Your task to perform on an android device: open app "Airtel Thanks" Image 0: 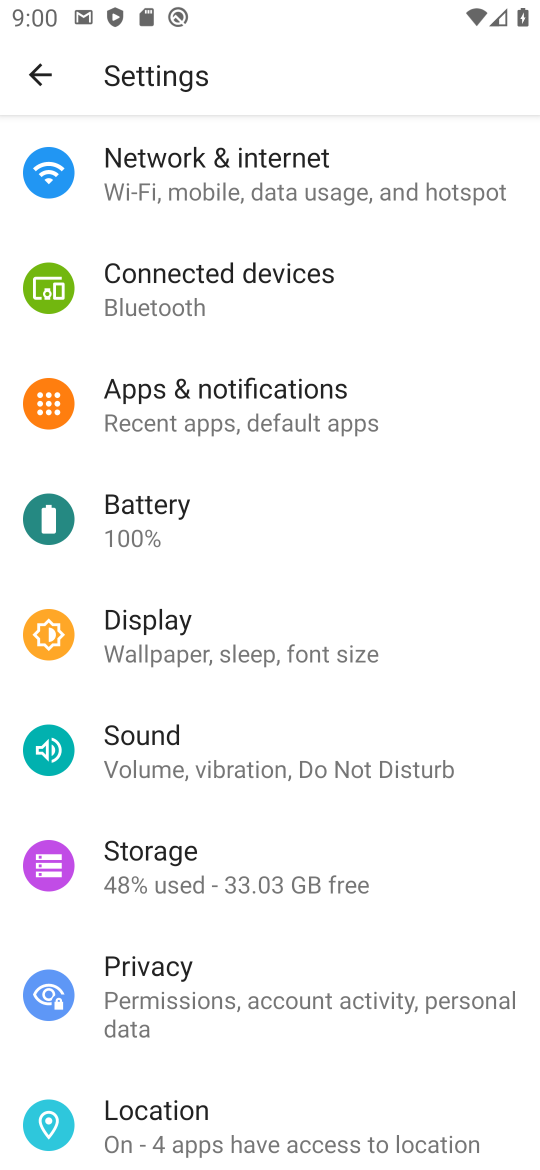
Step 0: press home button
Your task to perform on an android device: open app "Airtel Thanks" Image 1: 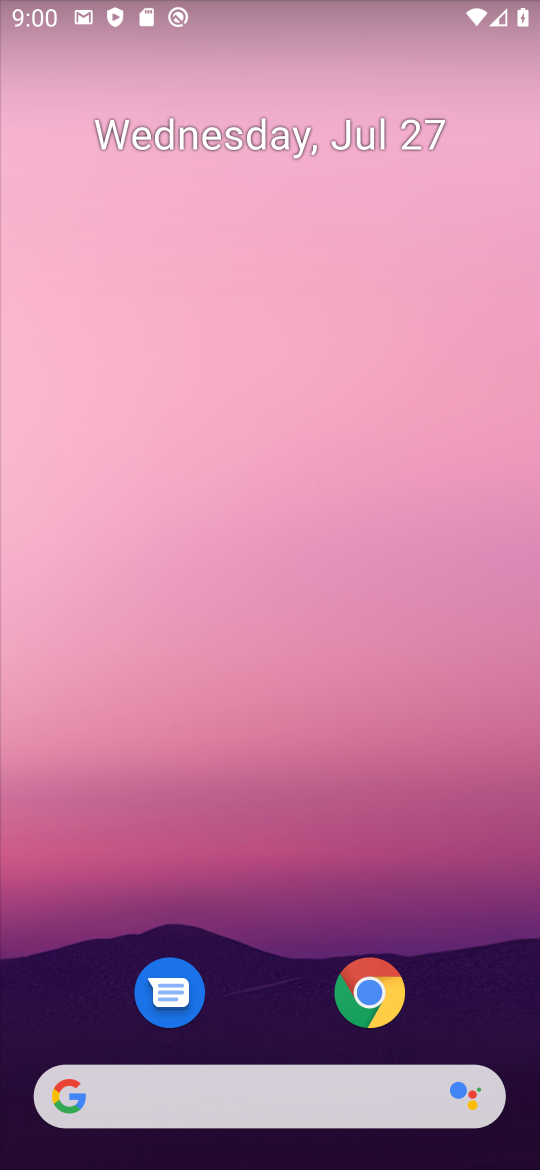
Step 1: drag from (301, 1066) to (301, 196)
Your task to perform on an android device: open app "Airtel Thanks" Image 2: 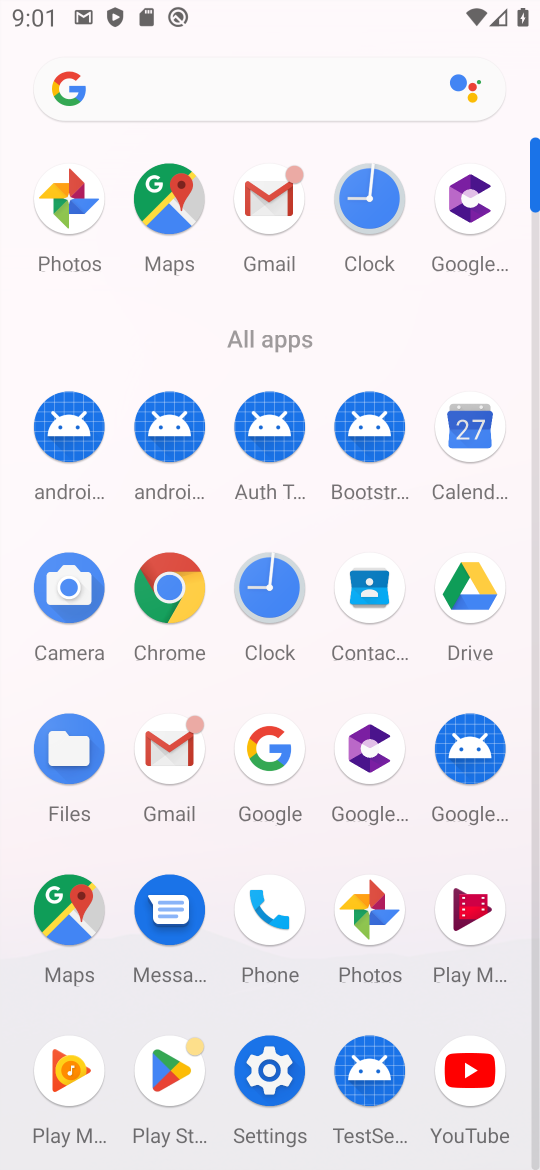
Step 2: click (175, 1072)
Your task to perform on an android device: open app "Airtel Thanks" Image 3: 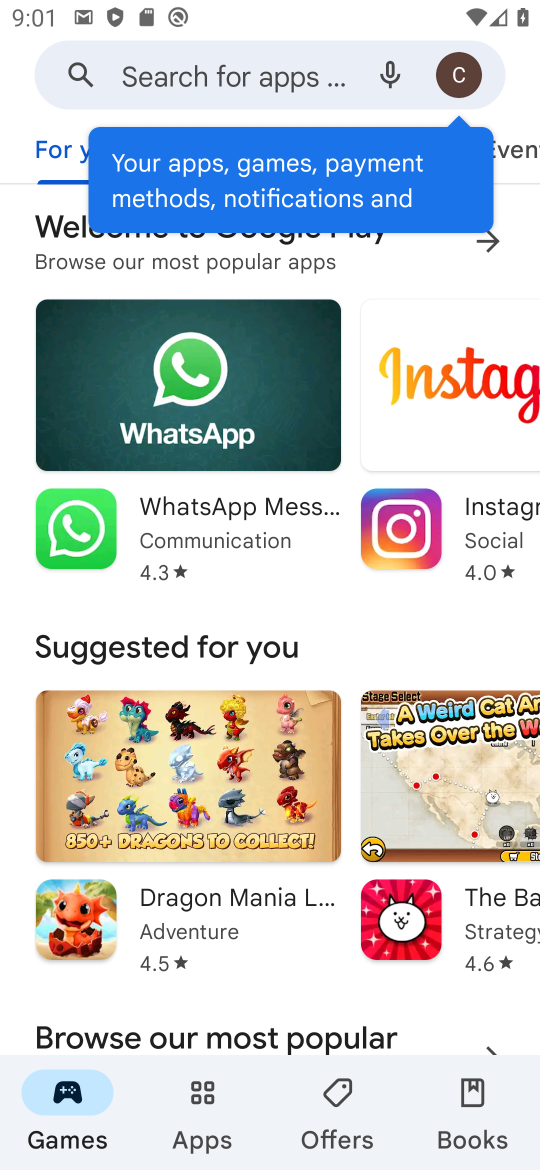
Step 3: click (231, 77)
Your task to perform on an android device: open app "Airtel Thanks" Image 4: 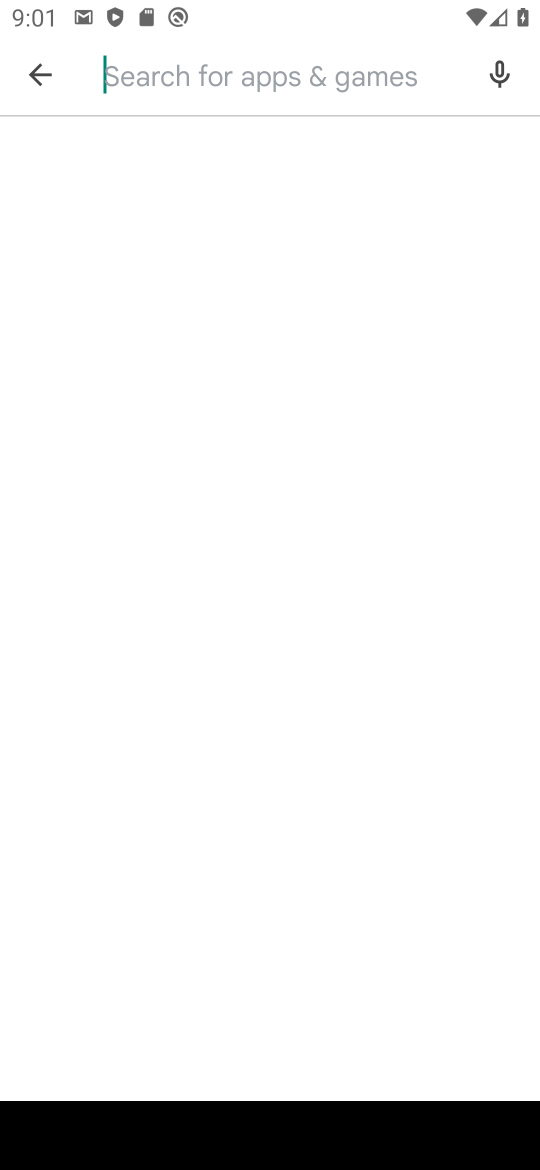
Step 4: type "Airtel Thanks"
Your task to perform on an android device: open app "Airtel Thanks" Image 5: 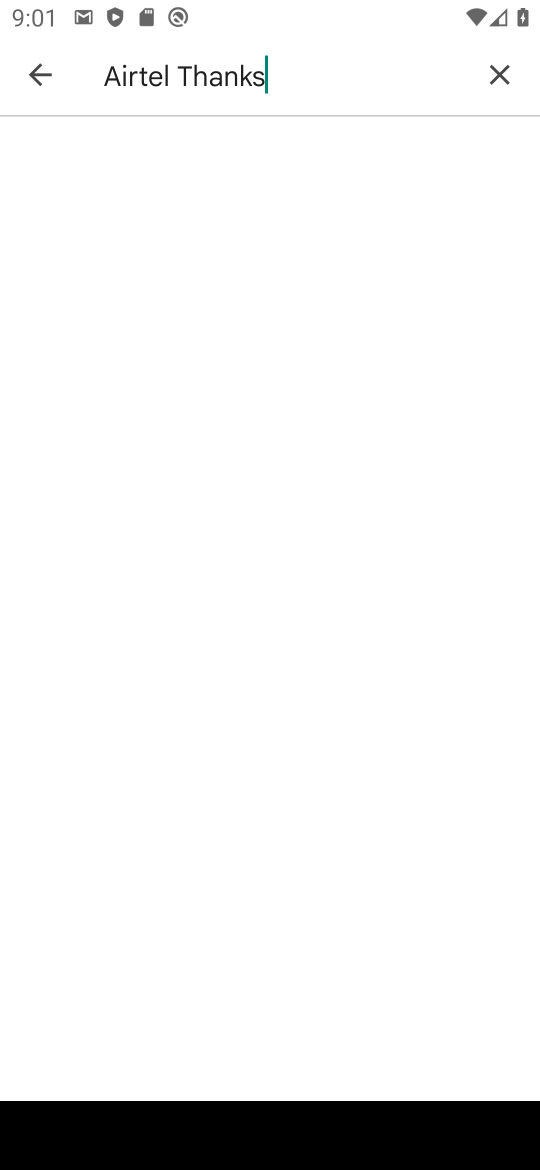
Step 5: type ""
Your task to perform on an android device: open app "Airtel Thanks" Image 6: 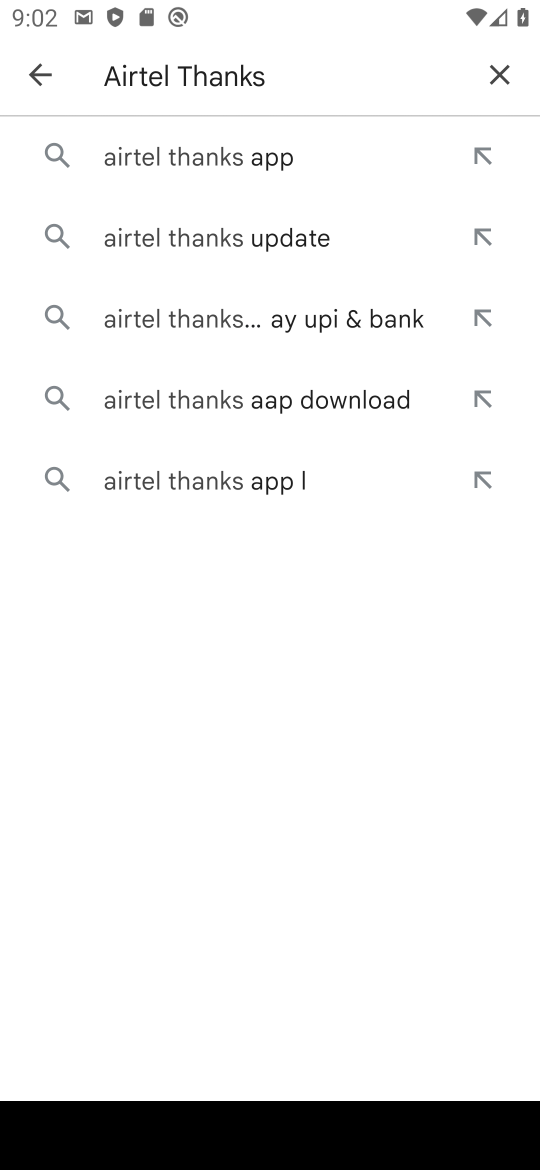
Step 6: click (231, 155)
Your task to perform on an android device: open app "Airtel Thanks" Image 7: 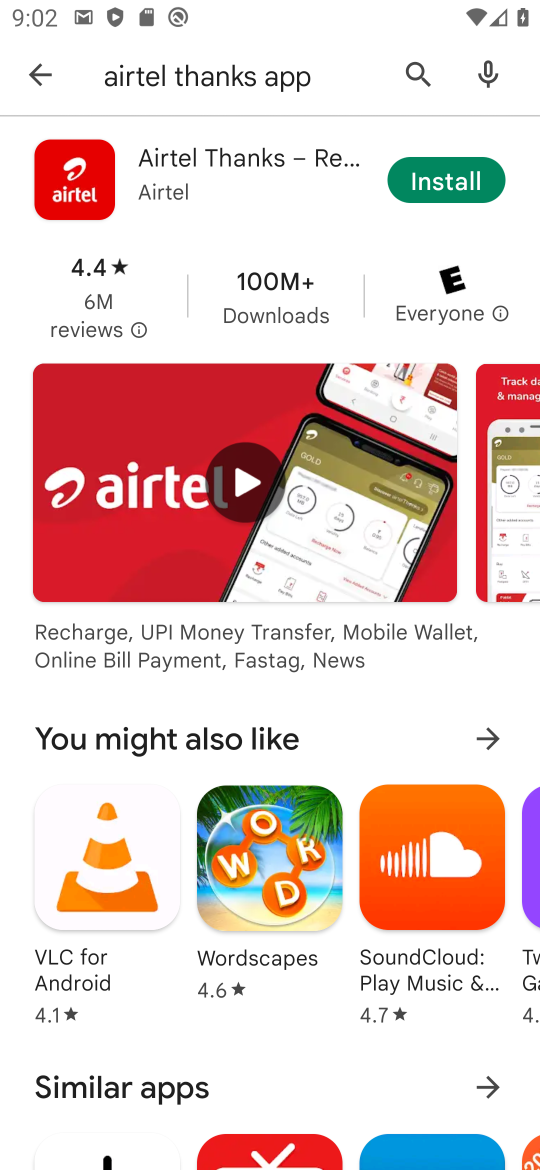
Step 7: task complete